Your task to perform on an android device: refresh tabs in the chrome app Image 0: 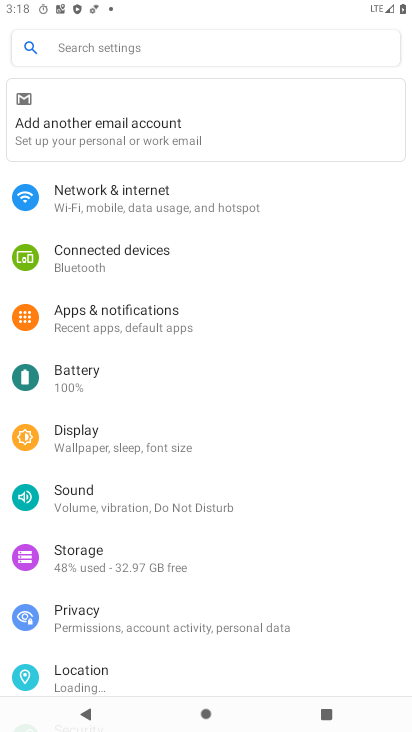
Step 0: press home button
Your task to perform on an android device: refresh tabs in the chrome app Image 1: 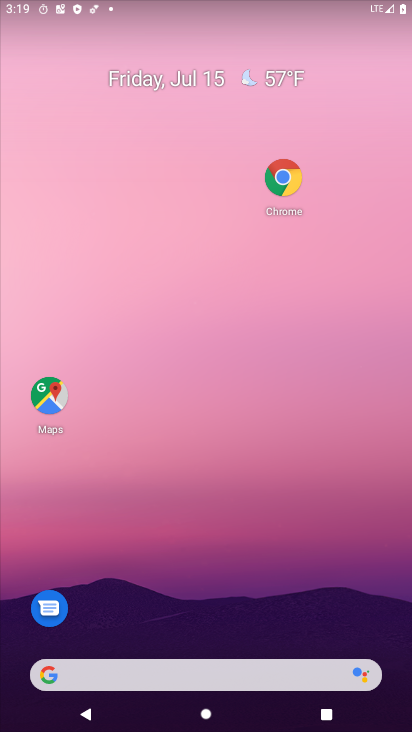
Step 1: click (287, 181)
Your task to perform on an android device: refresh tabs in the chrome app Image 2: 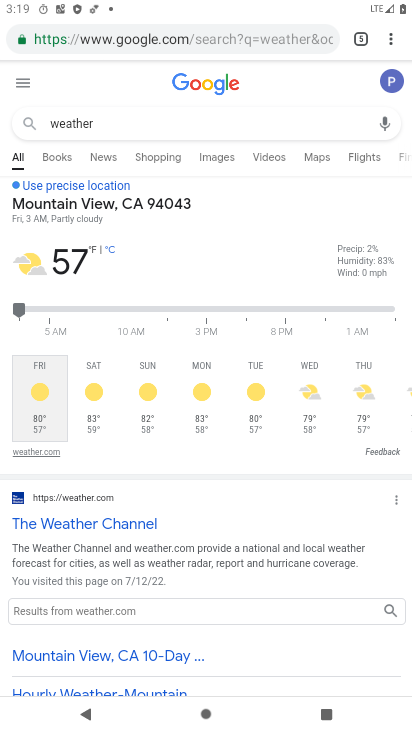
Step 2: click (396, 43)
Your task to perform on an android device: refresh tabs in the chrome app Image 3: 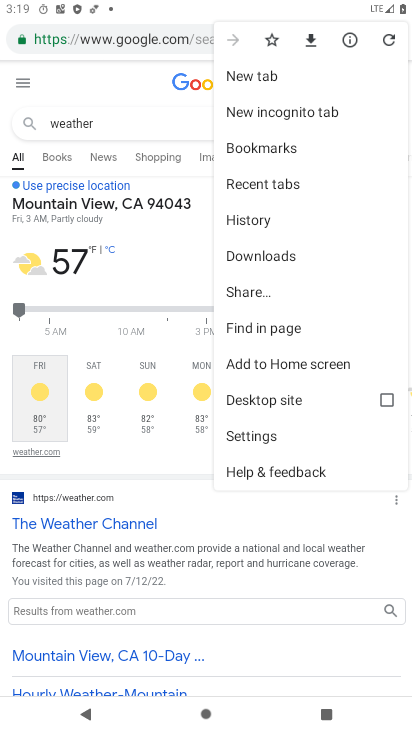
Step 3: click (394, 47)
Your task to perform on an android device: refresh tabs in the chrome app Image 4: 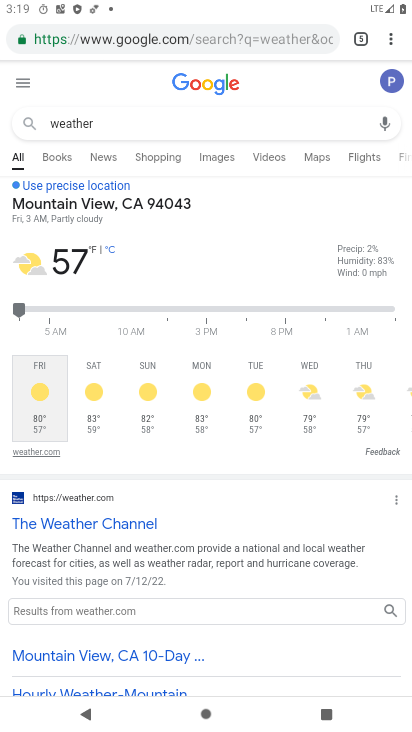
Step 4: task complete